Your task to perform on an android device: check storage Image 0: 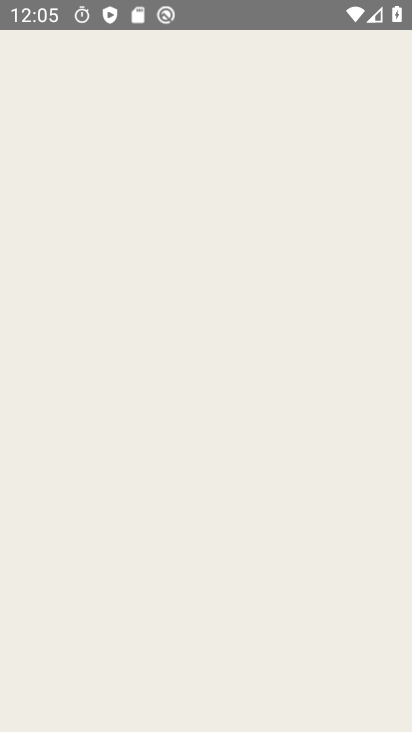
Step 0: drag from (276, 3) to (329, 5)
Your task to perform on an android device: check storage Image 1: 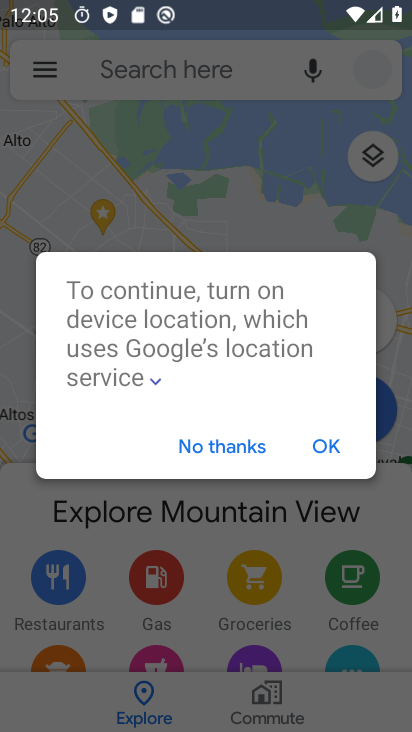
Step 1: press home button
Your task to perform on an android device: check storage Image 2: 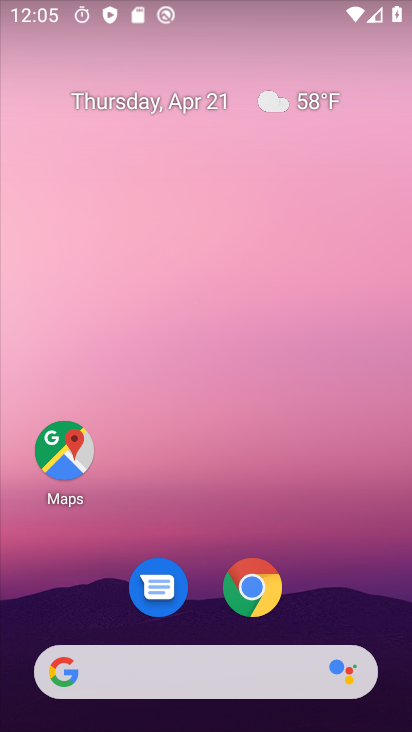
Step 2: drag from (212, 608) to (284, 13)
Your task to perform on an android device: check storage Image 3: 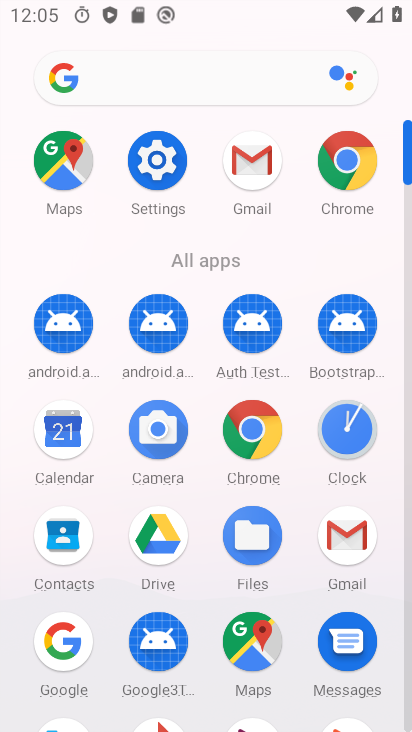
Step 3: click (154, 168)
Your task to perform on an android device: check storage Image 4: 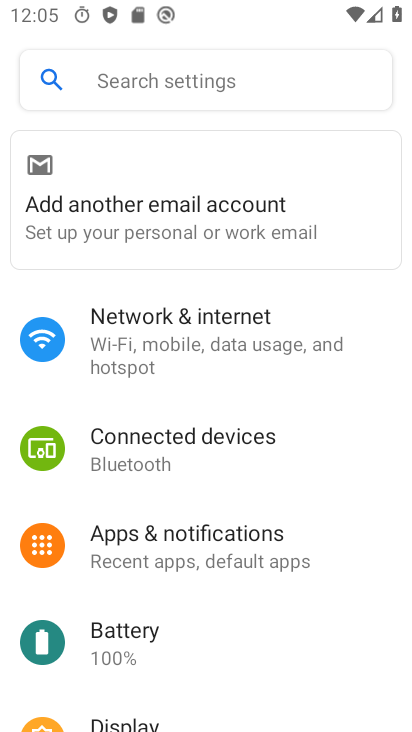
Step 4: drag from (166, 623) to (283, 62)
Your task to perform on an android device: check storage Image 5: 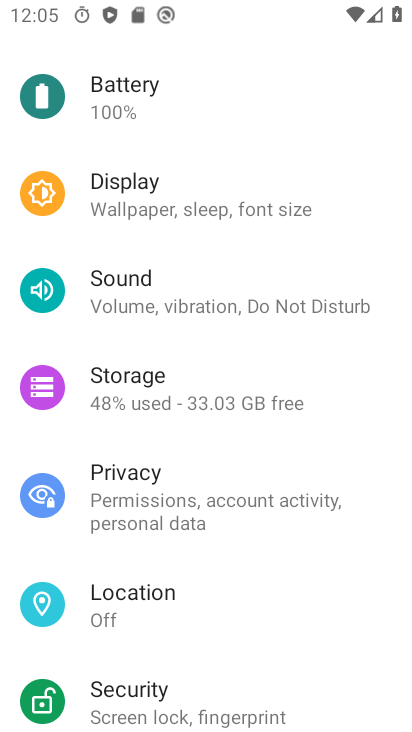
Step 5: click (146, 385)
Your task to perform on an android device: check storage Image 6: 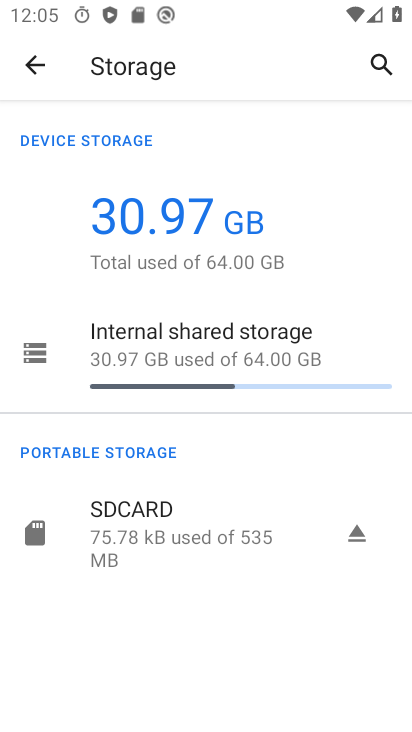
Step 6: click (156, 333)
Your task to perform on an android device: check storage Image 7: 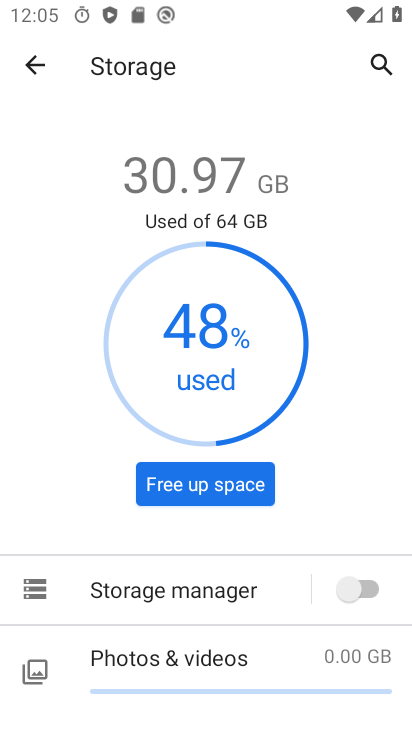
Step 7: task complete